Your task to perform on an android device: Is it going to rain this weekend? Image 0: 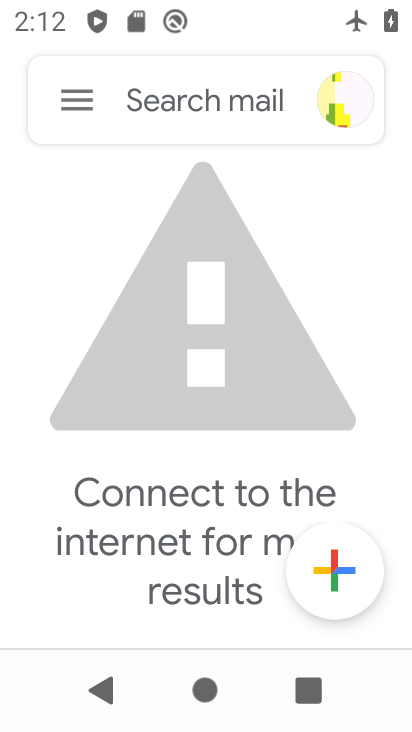
Step 0: press home button
Your task to perform on an android device: Is it going to rain this weekend? Image 1: 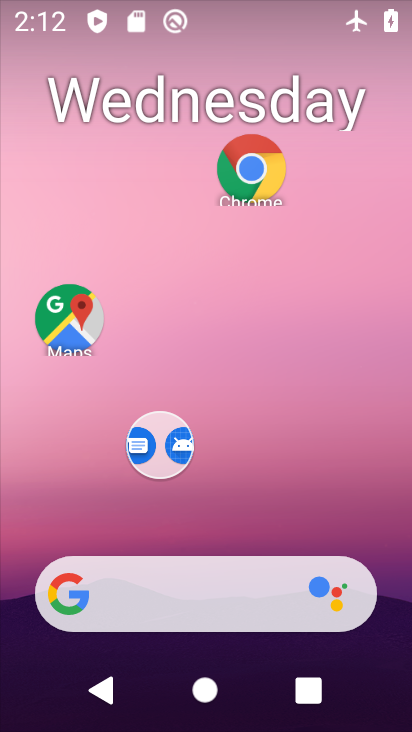
Step 1: drag from (243, 542) to (371, 78)
Your task to perform on an android device: Is it going to rain this weekend? Image 2: 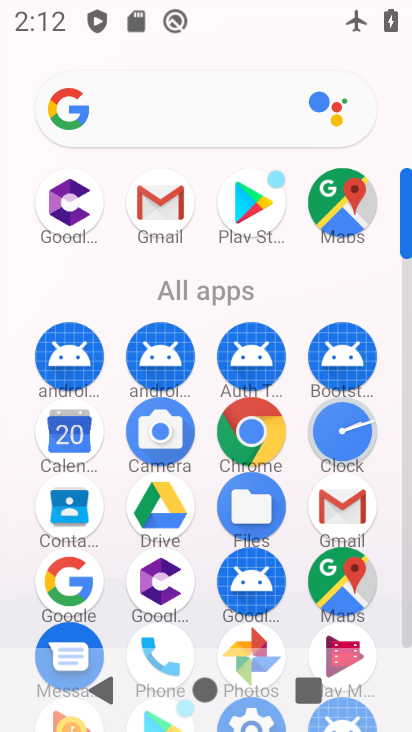
Step 2: click (70, 575)
Your task to perform on an android device: Is it going to rain this weekend? Image 3: 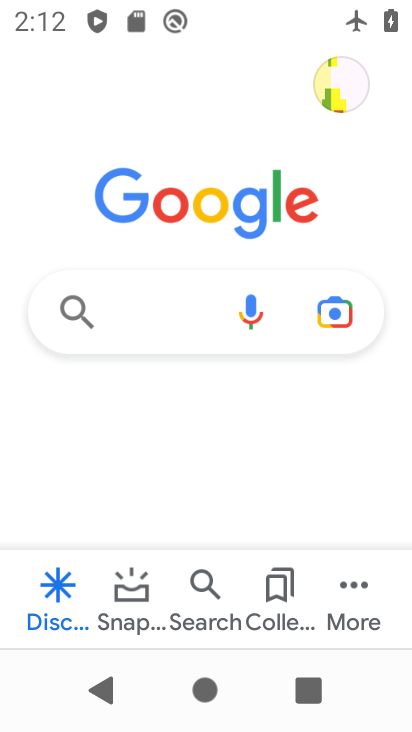
Step 3: click (140, 330)
Your task to perform on an android device: Is it going to rain this weekend? Image 4: 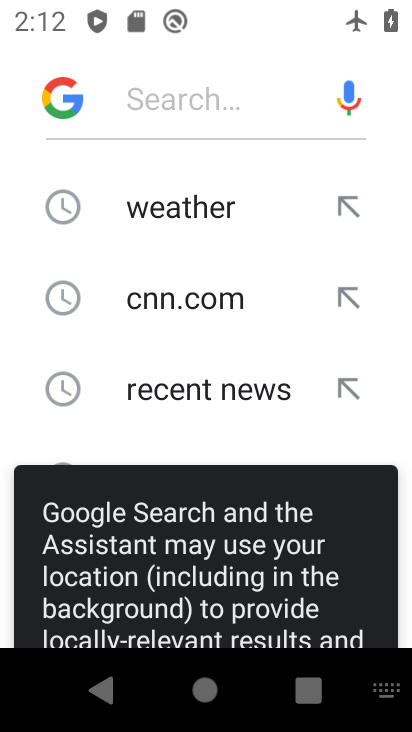
Step 4: click (158, 227)
Your task to perform on an android device: Is it going to rain this weekend? Image 5: 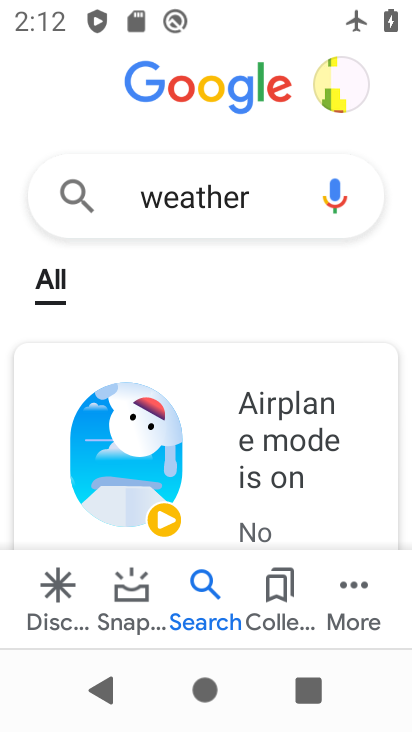
Step 5: task complete